Your task to perform on an android device: delete browsing data in the chrome app Image 0: 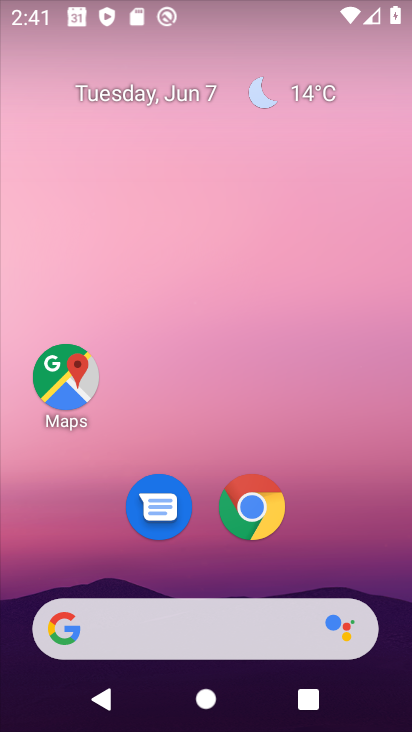
Step 0: press home button
Your task to perform on an android device: delete browsing data in the chrome app Image 1: 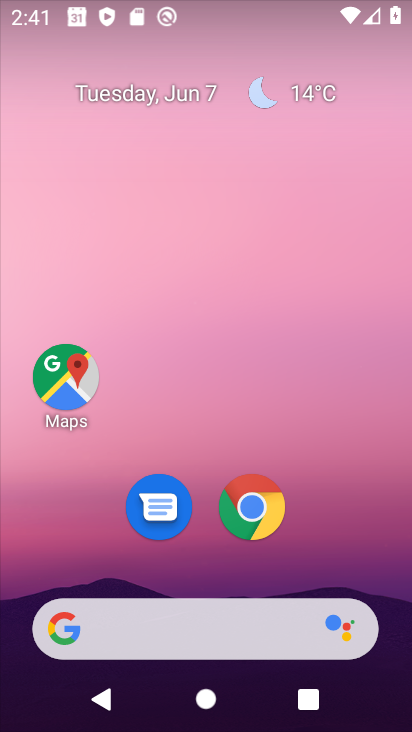
Step 1: click (253, 514)
Your task to perform on an android device: delete browsing data in the chrome app Image 2: 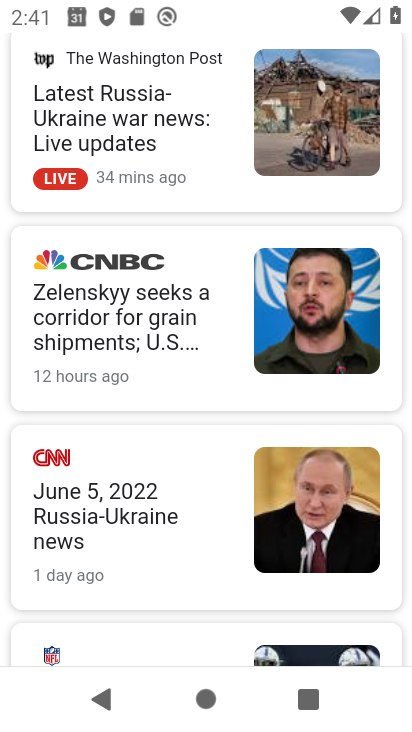
Step 2: drag from (311, 23) to (317, 375)
Your task to perform on an android device: delete browsing data in the chrome app Image 3: 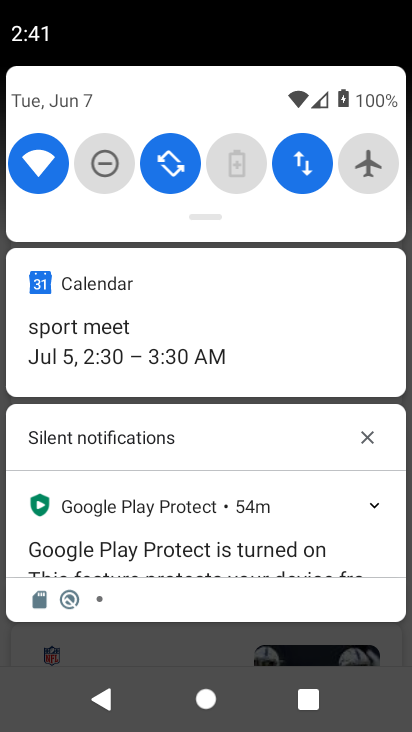
Step 3: drag from (279, 649) to (266, 78)
Your task to perform on an android device: delete browsing data in the chrome app Image 4: 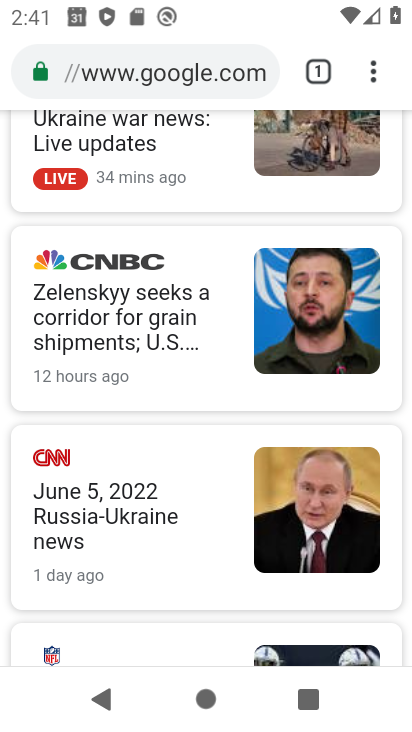
Step 4: click (370, 72)
Your task to perform on an android device: delete browsing data in the chrome app Image 5: 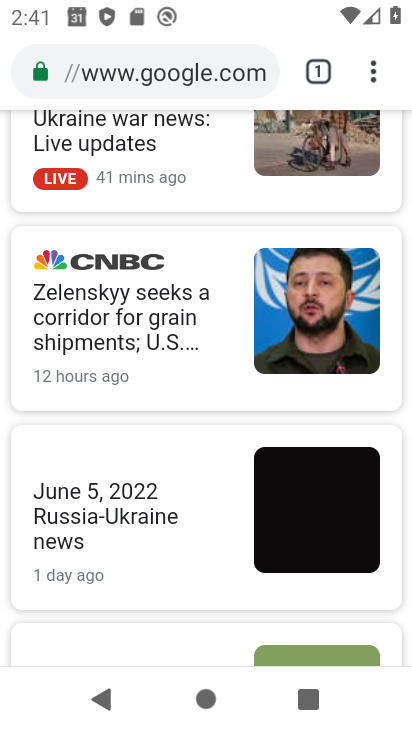
Step 5: drag from (373, 78) to (150, 121)
Your task to perform on an android device: delete browsing data in the chrome app Image 6: 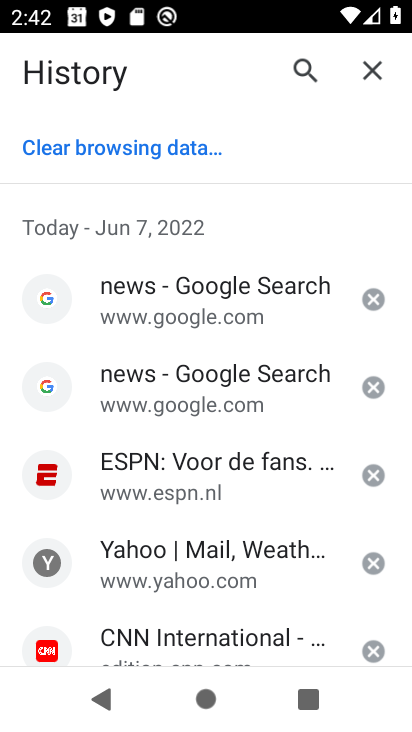
Step 6: click (154, 151)
Your task to perform on an android device: delete browsing data in the chrome app Image 7: 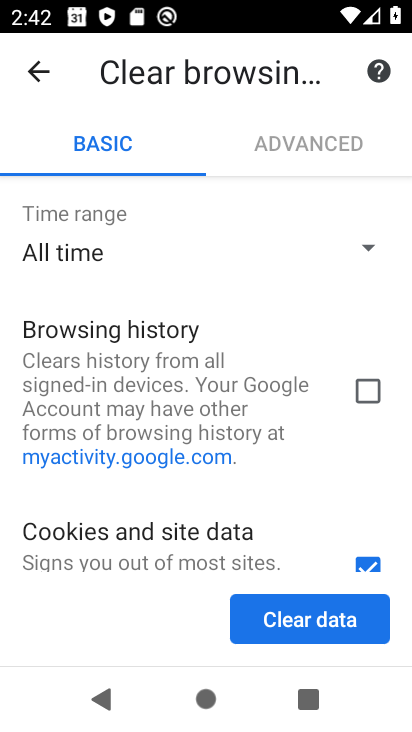
Step 7: click (372, 390)
Your task to perform on an android device: delete browsing data in the chrome app Image 8: 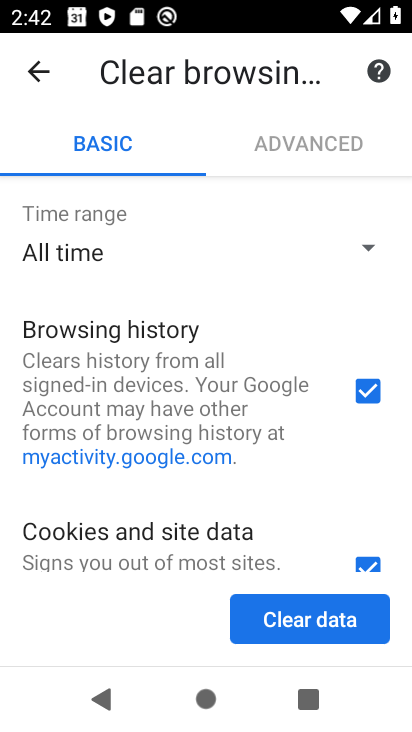
Step 8: drag from (175, 468) to (217, 57)
Your task to perform on an android device: delete browsing data in the chrome app Image 9: 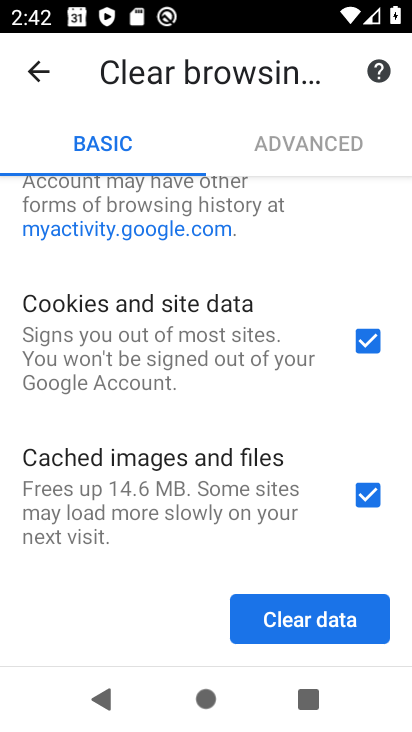
Step 9: click (318, 618)
Your task to perform on an android device: delete browsing data in the chrome app Image 10: 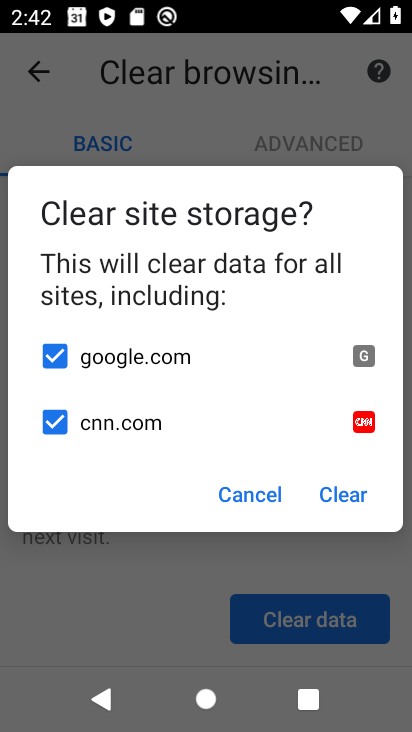
Step 10: click (337, 486)
Your task to perform on an android device: delete browsing data in the chrome app Image 11: 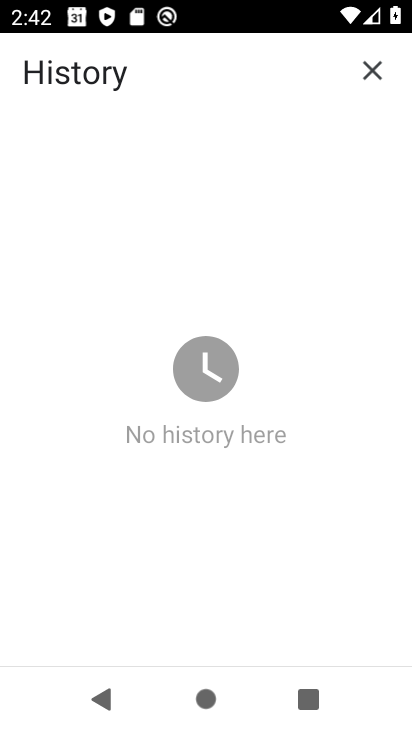
Step 11: task complete